Your task to perform on an android device: Show me recent news Image 0: 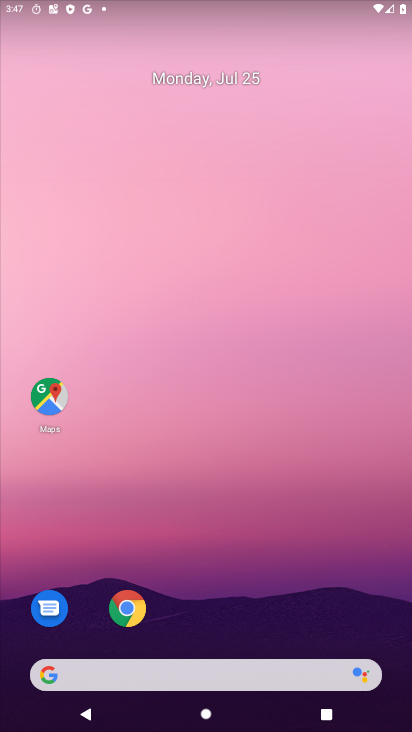
Step 0: press home button
Your task to perform on an android device: Show me recent news Image 1: 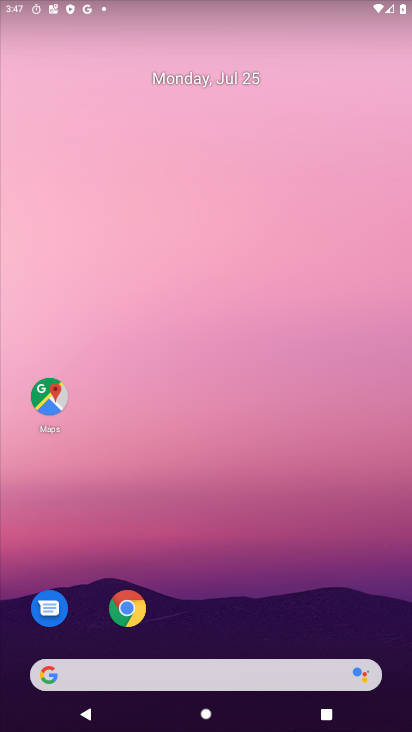
Step 1: task complete